Your task to perform on an android device: turn off airplane mode Image 0: 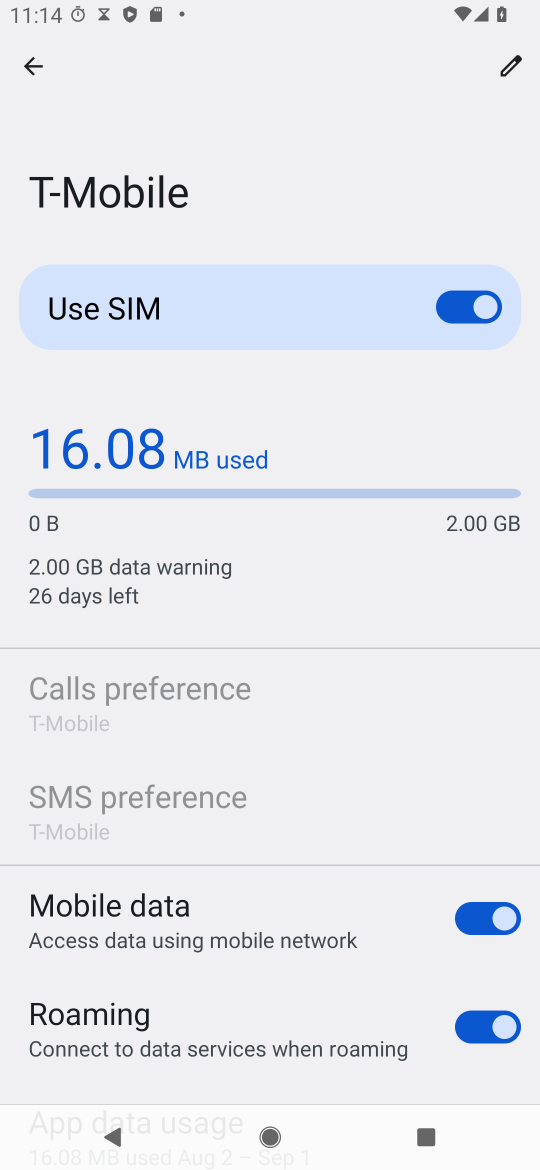
Step 0: press home button
Your task to perform on an android device: turn off airplane mode Image 1: 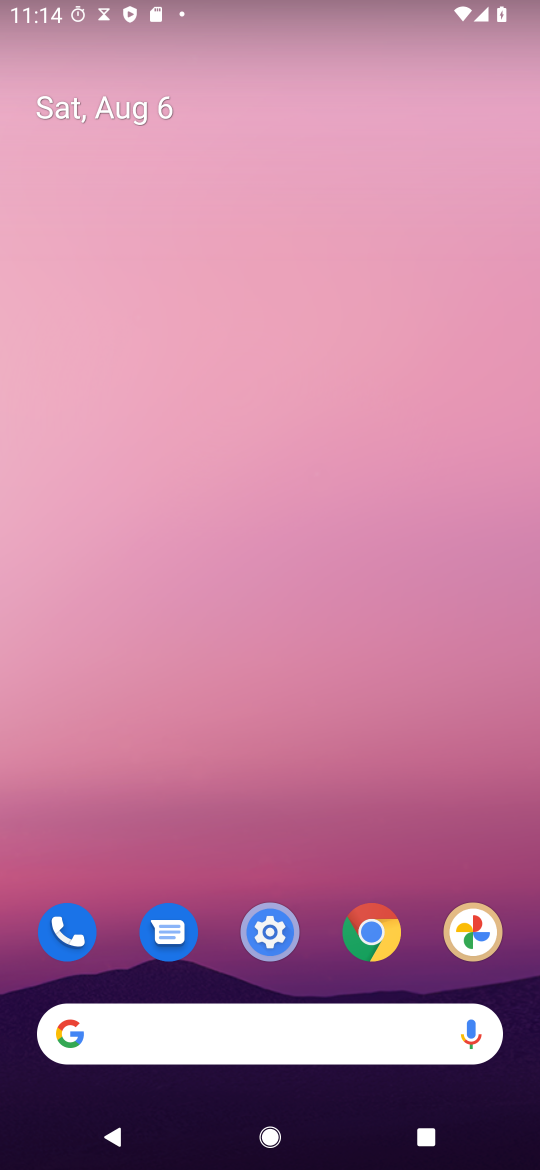
Step 1: click (273, 938)
Your task to perform on an android device: turn off airplane mode Image 2: 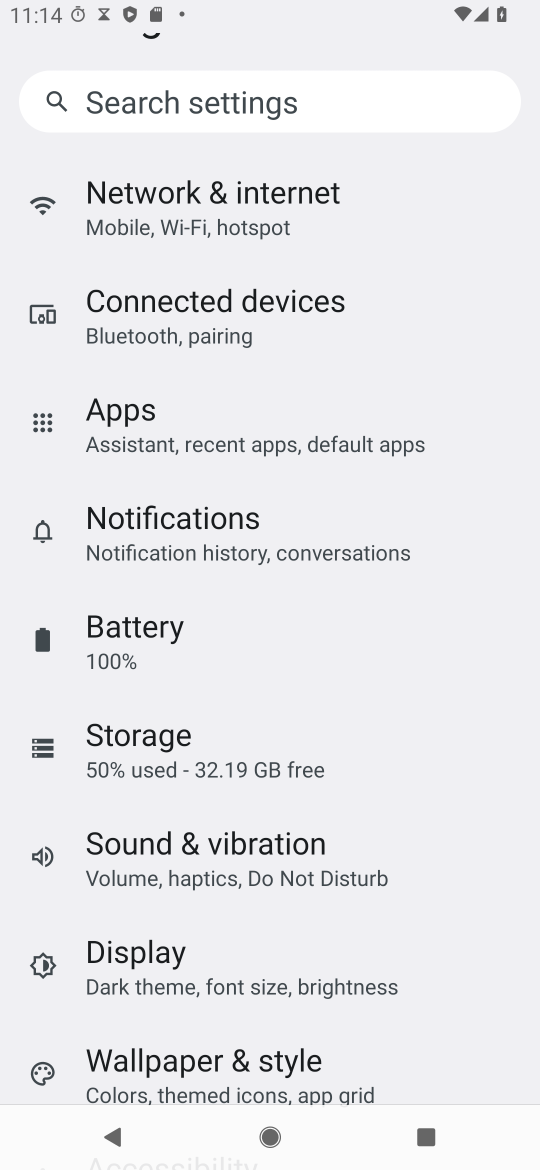
Step 2: click (188, 223)
Your task to perform on an android device: turn off airplane mode Image 3: 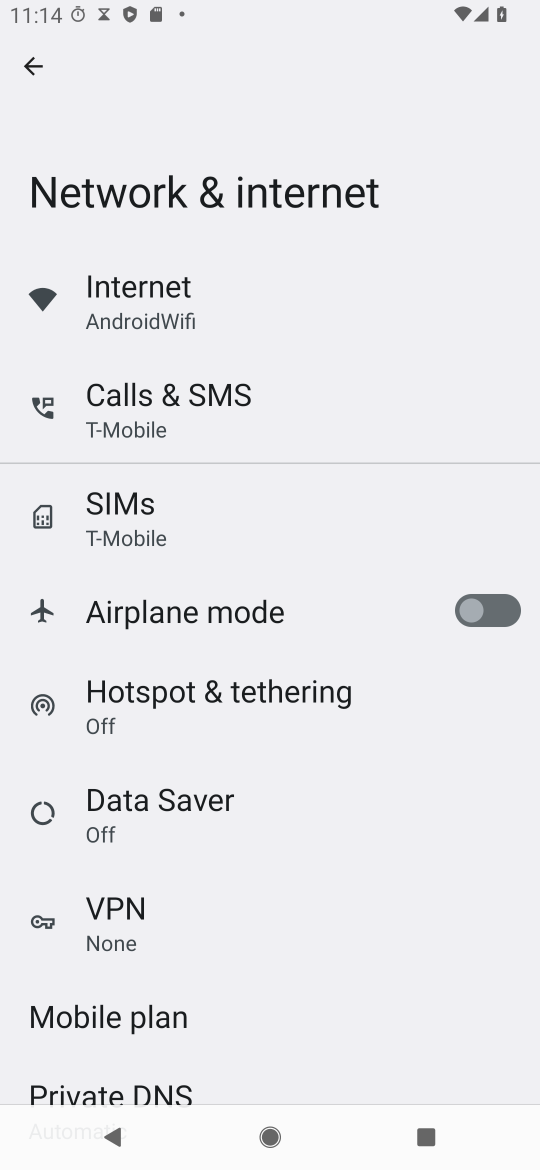
Step 3: task complete